Your task to perform on an android device: Open CNN.com Image 0: 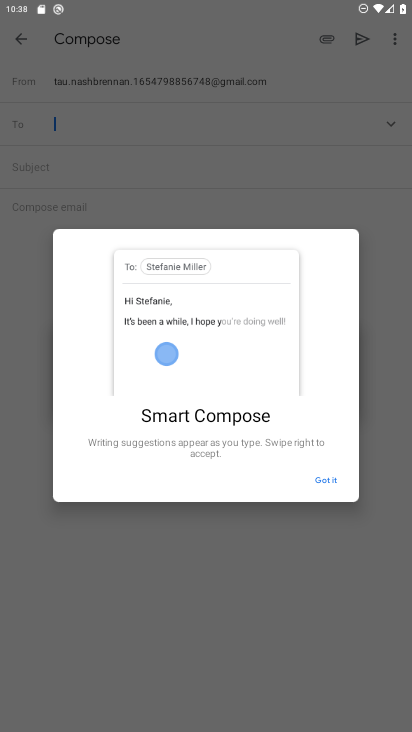
Step 0: press back button
Your task to perform on an android device: Open CNN.com Image 1: 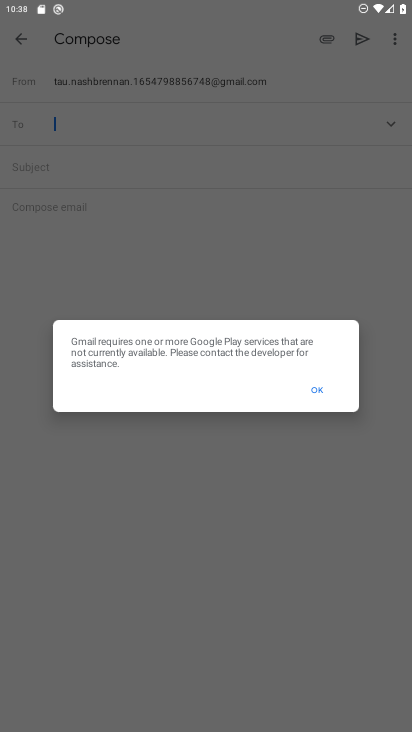
Step 1: press back button
Your task to perform on an android device: Open CNN.com Image 2: 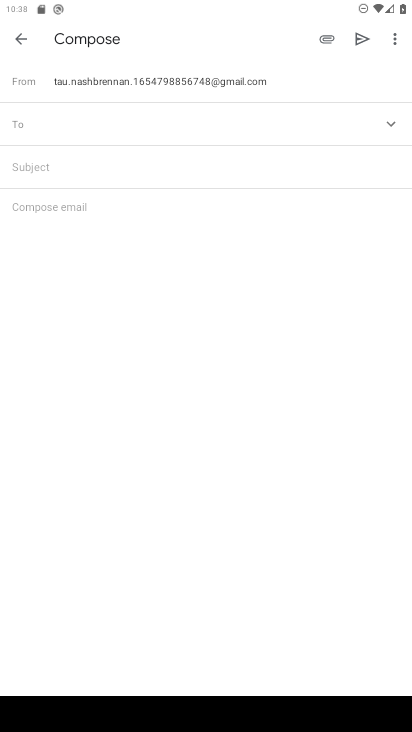
Step 2: press back button
Your task to perform on an android device: Open CNN.com Image 3: 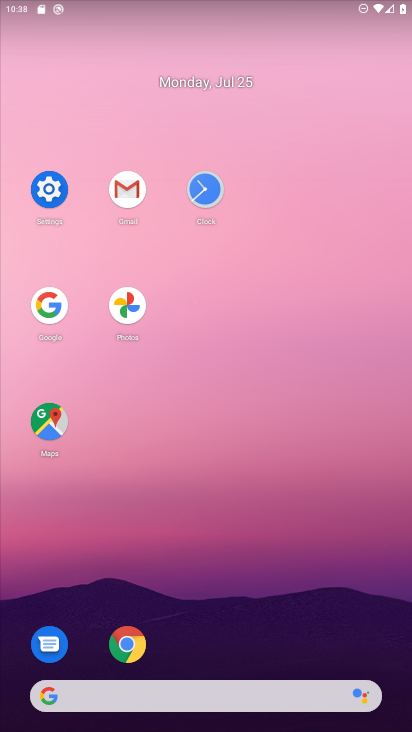
Step 3: click (137, 647)
Your task to perform on an android device: Open CNN.com Image 4: 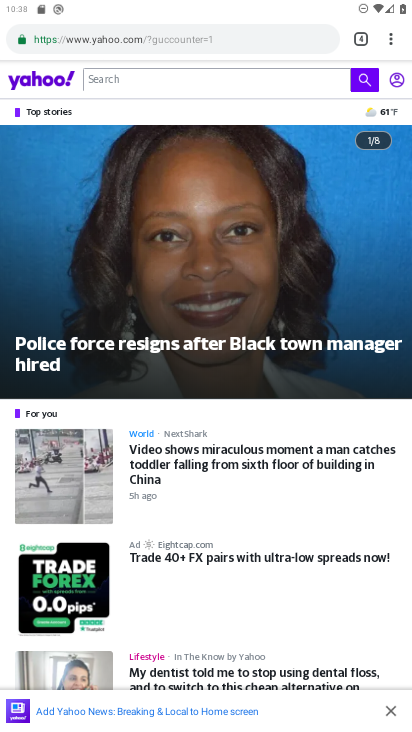
Step 4: click (354, 39)
Your task to perform on an android device: Open CNN.com Image 5: 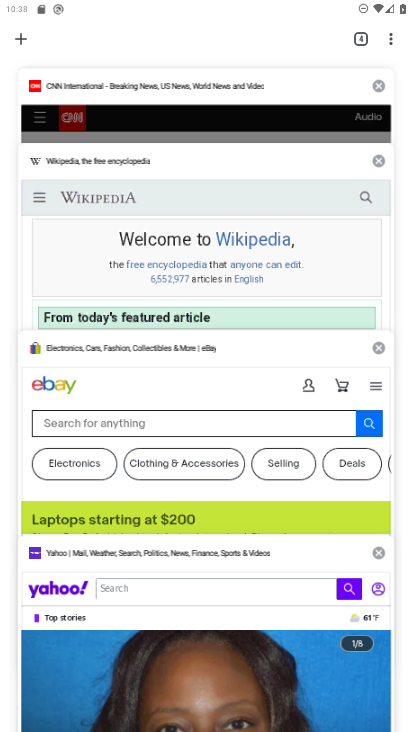
Step 5: click (18, 46)
Your task to perform on an android device: Open CNN.com Image 6: 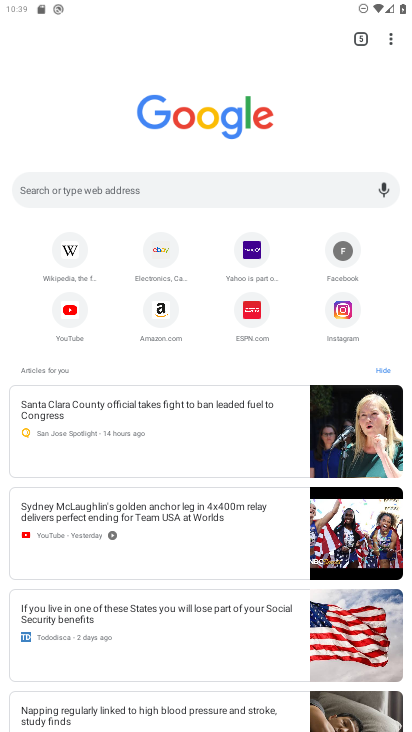
Step 6: click (191, 186)
Your task to perform on an android device: Open CNN.com Image 7: 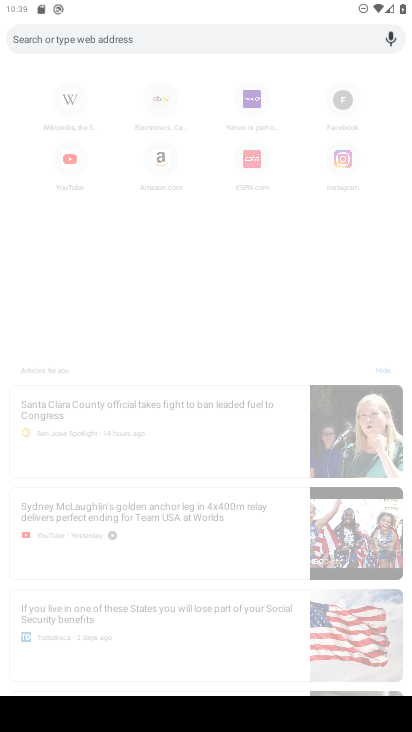
Step 7: type "cnn"
Your task to perform on an android device: Open CNN.com Image 8: 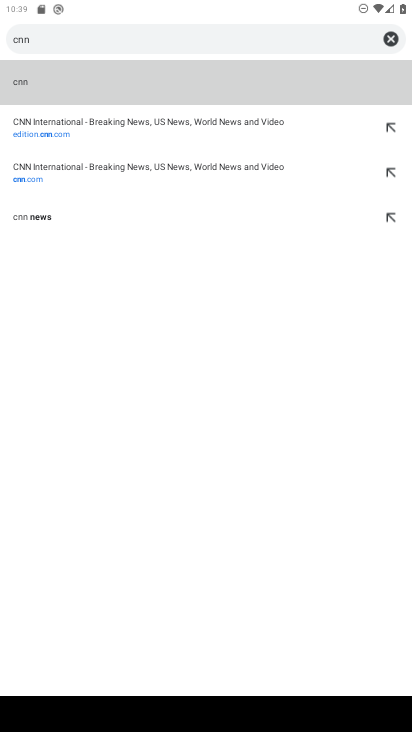
Step 8: click (62, 129)
Your task to perform on an android device: Open CNN.com Image 9: 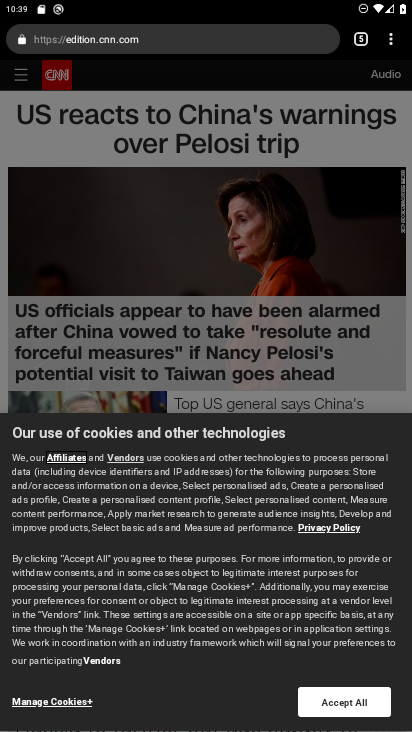
Step 9: task complete